Your task to perform on an android device: stop showing notifications on the lock screen Image 0: 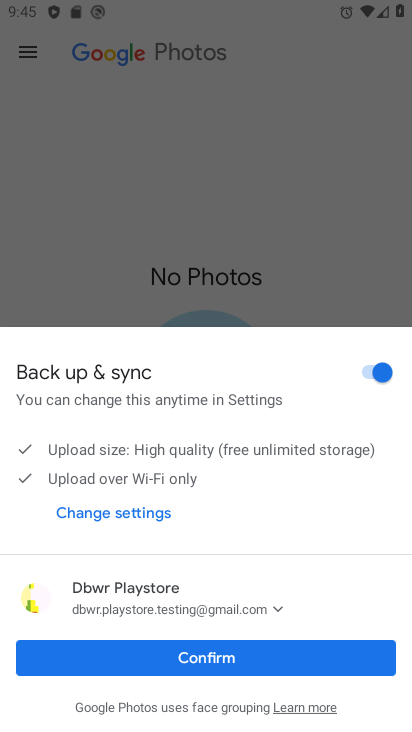
Step 0: press home button
Your task to perform on an android device: stop showing notifications on the lock screen Image 1: 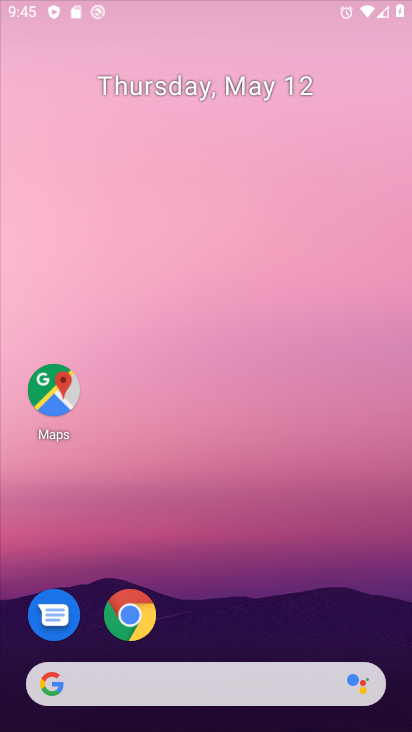
Step 1: drag from (246, 553) to (297, 15)
Your task to perform on an android device: stop showing notifications on the lock screen Image 2: 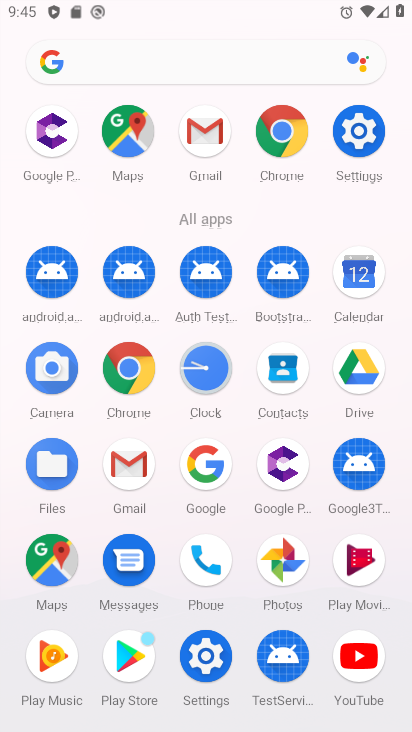
Step 2: click (354, 132)
Your task to perform on an android device: stop showing notifications on the lock screen Image 3: 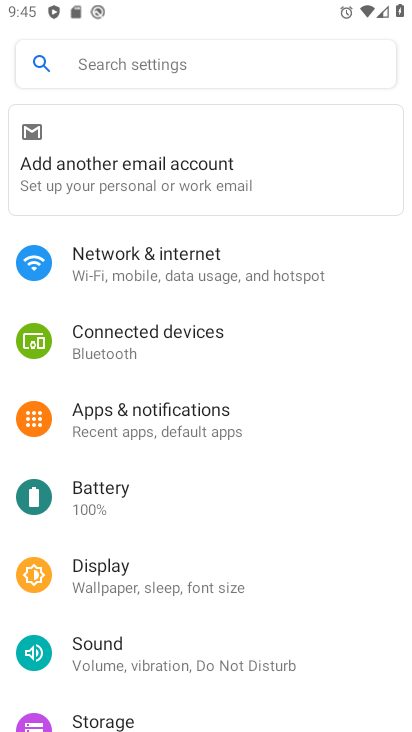
Step 3: click (183, 431)
Your task to perform on an android device: stop showing notifications on the lock screen Image 4: 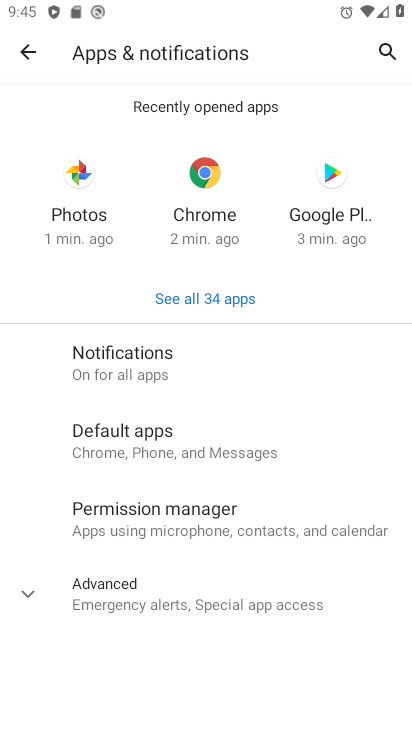
Step 4: click (159, 368)
Your task to perform on an android device: stop showing notifications on the lock screen Image 5: 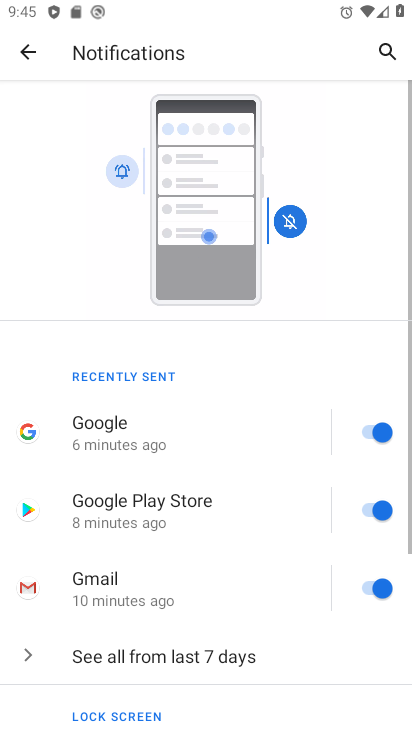
Step 5: drag from (237, 604) to (349, 25)
Your task to perform on an android device: stop showing notifications on the lock screen Image 6: 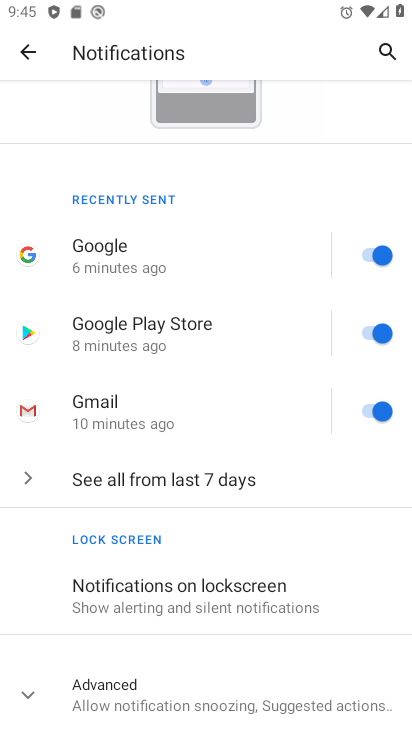
Step 6: click (140, 706)
Your task to perform on an android device: stop showing notifications on the lock screen Image 7: 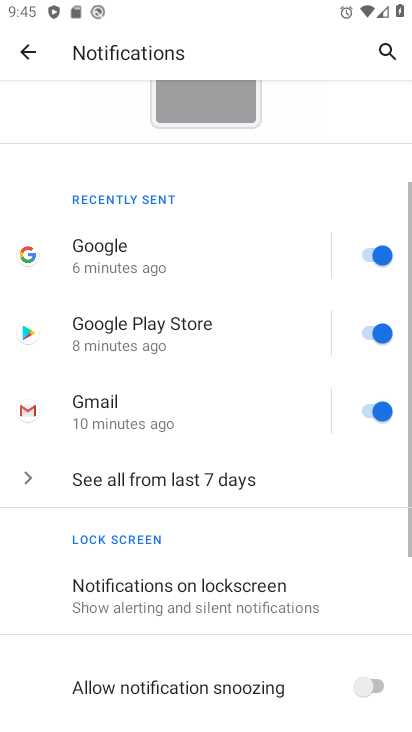
Step 7: drag from (181, 631) to (232, 275)
Your task to perform on an android device: stop showing notifications on the lock screen Image 8: 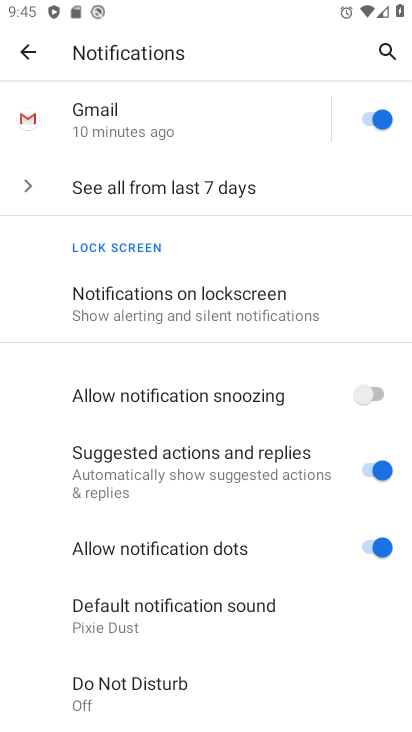
Step 8: drag from (222, 261) to (170, 718)
Your task to perform on an android device: stop showing notifications on the lock screen Image 9: 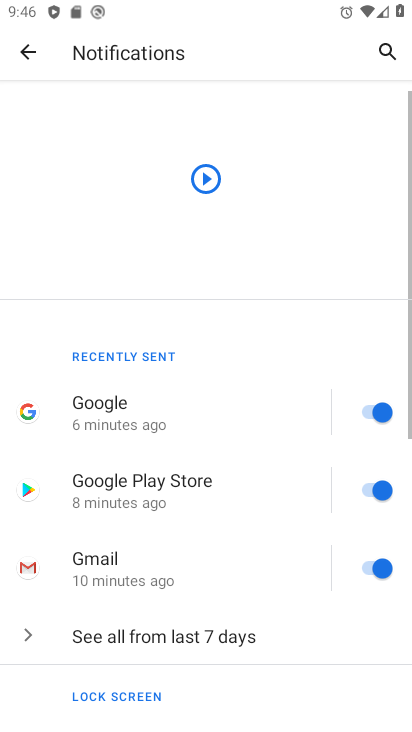
Step 9: drag from (196, 329) to (190, 630)
Your task to perform on an android device: stop showing notifications on the lock screen Image 10: 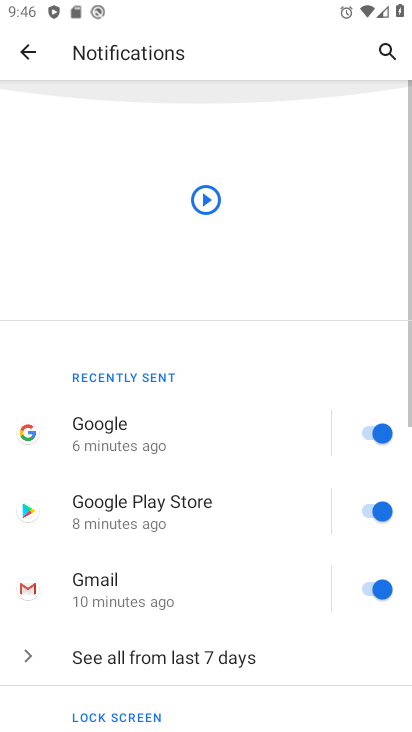
Step 10: drag from (188, 628) to (250, 218)
Your task to perform on an android device: stop showing notifications on the lock screen Image 11: 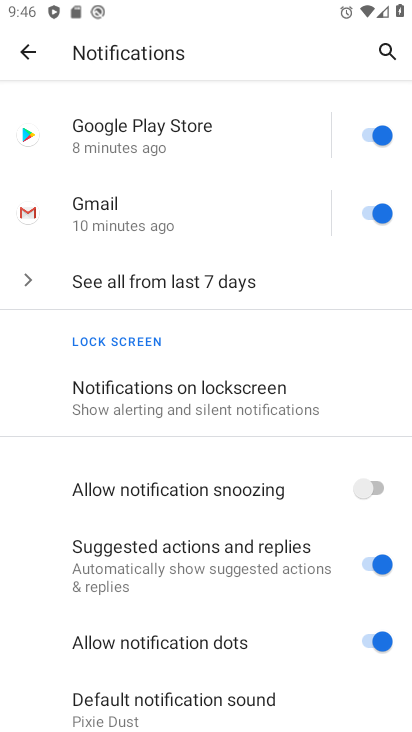
Step 11: drag from (151, 523) to (179, 382)
Your task to perform on an android device: stop showing notifications on the lock screen Image 12: 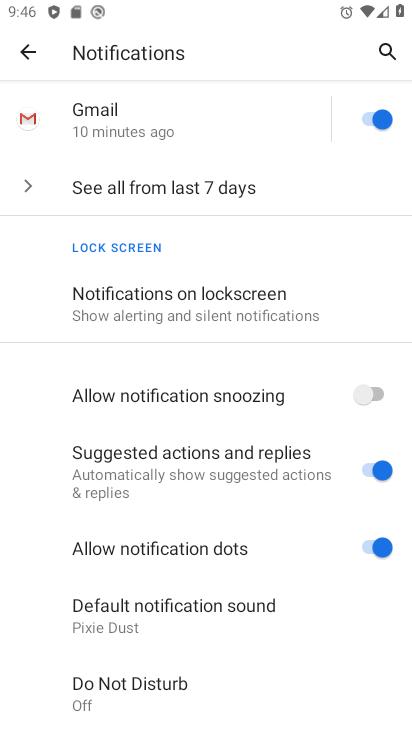
Step 12: click (198, 309)
Your task to perform on an android device: stop showing notifications on the lock screen Image 13: 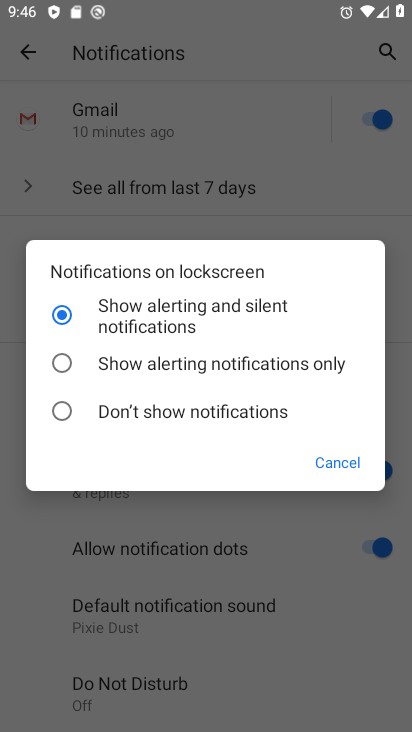
Step 13: click (201, 417)
Your task to perform on an android device: stop showing notifications on the lock screen Image 14: 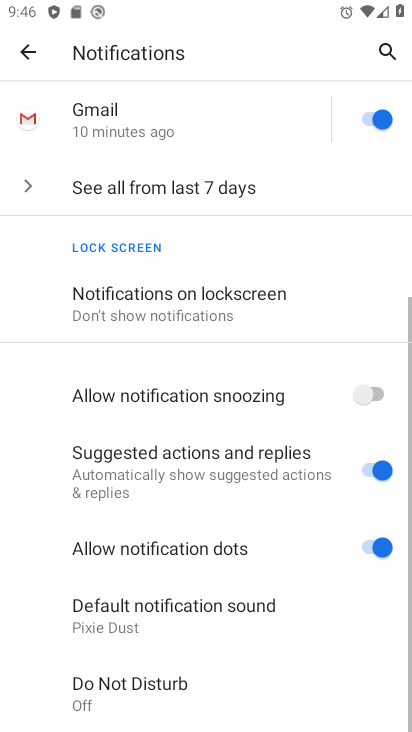
Step 14: task complete